Your task to perform on an android device: Open network settings Image 0: 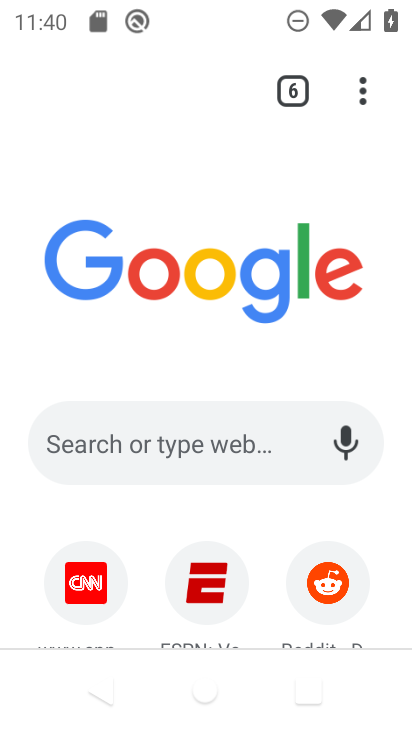
Step 0: press home button
Your task to perform on an android device: Open network settings Image 1: 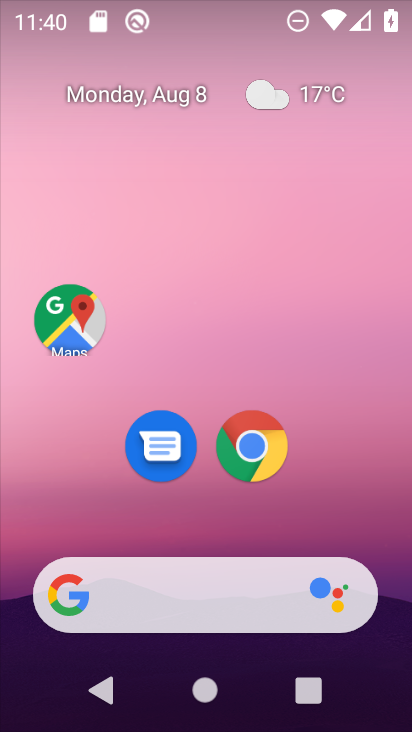
Step 1: drag from (400, 599) to (358, 106)
Your task to perform on an android device: Open network settings Image 2: 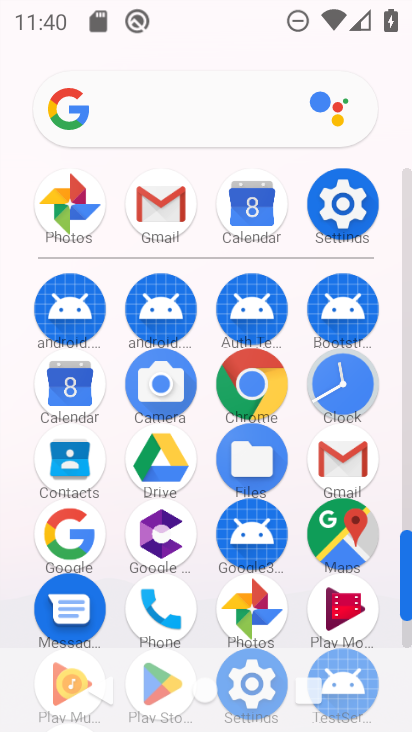
Step 2: click (407, 634)
Your task to perform on an android device: Open network settings Image 3: 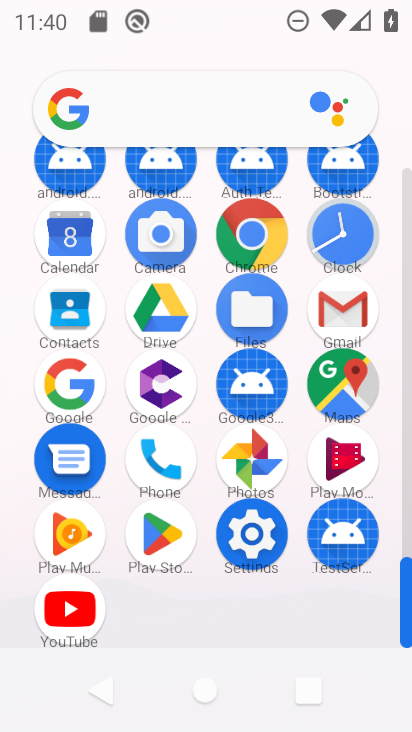
Step 3: click (251, 531)
Your task to perform on an android device: Open network settings Image 4: 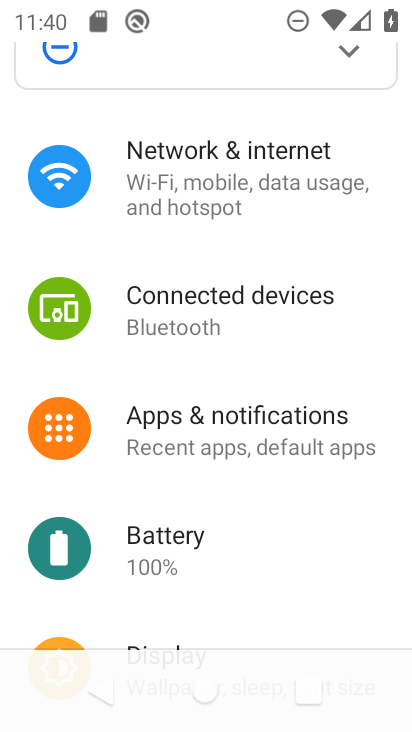
Step 4: click (175, 168)
Your task to perform on an android device: Open network settings Image 5: 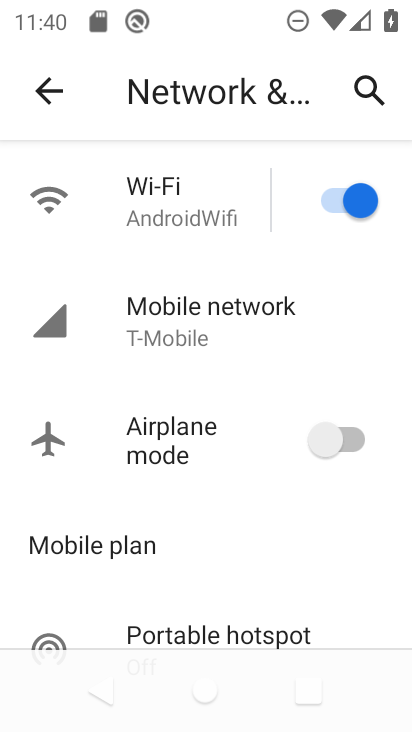
Step 5: click (194, 327)
Your task to perform on an android device: Open network settings Image 6: 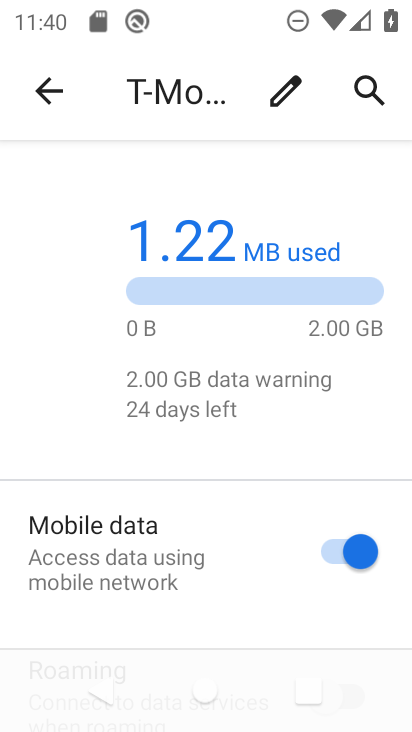
Step 6: task complete